Your task to perform on an android device: open a new tab in the chrome app Image 0: 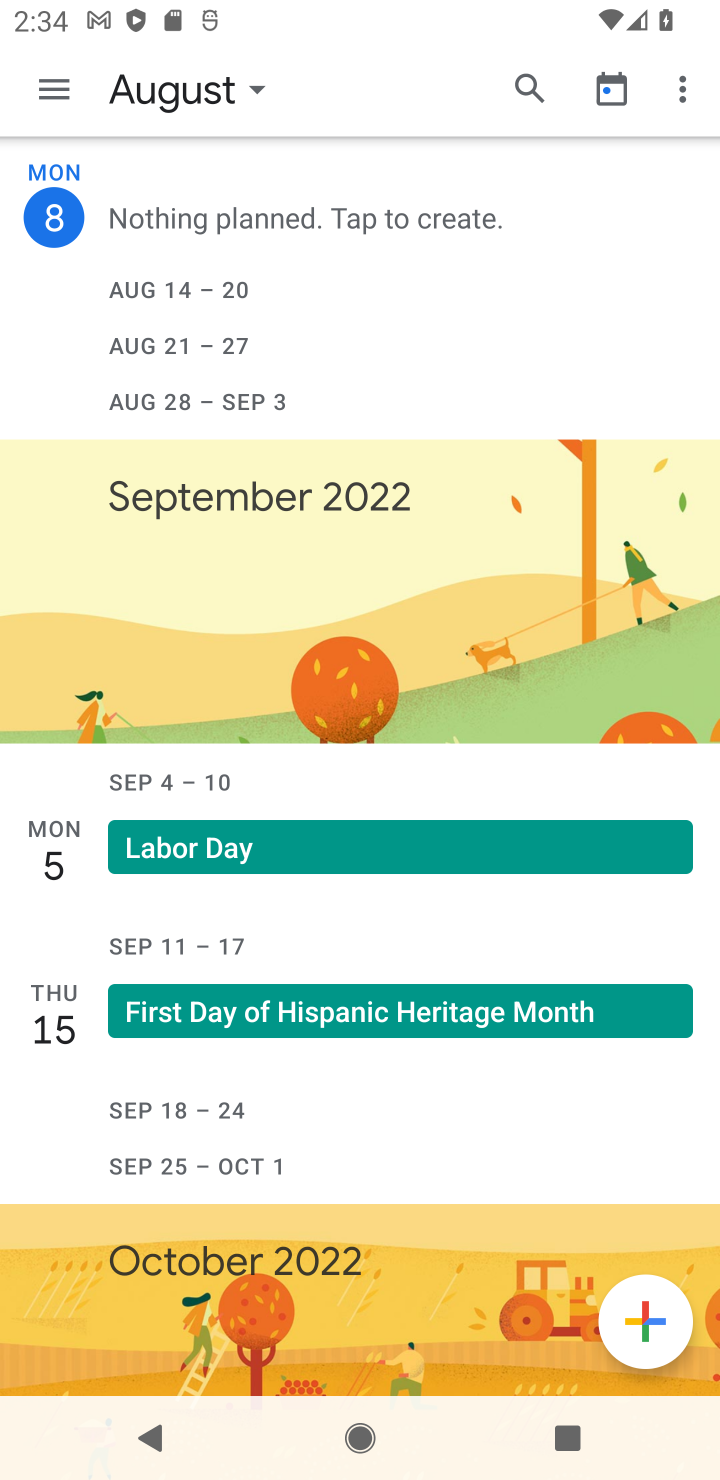
Step 0: press home button
Your task to perform on an android device: open a new tab in the chrome app Image 1: 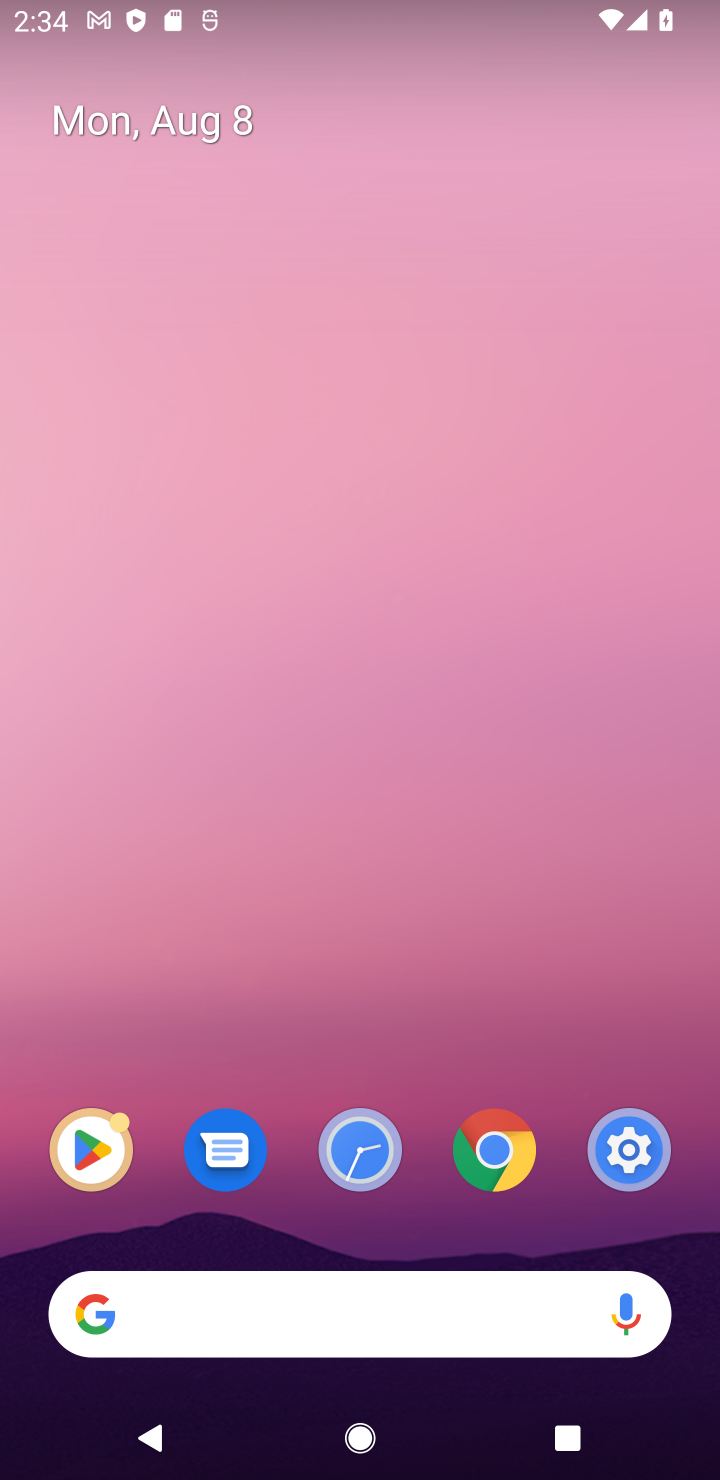
Step 1: click (490, 1108)
Your task to perform on an android device: open a new tab in the chrome app Image 2: 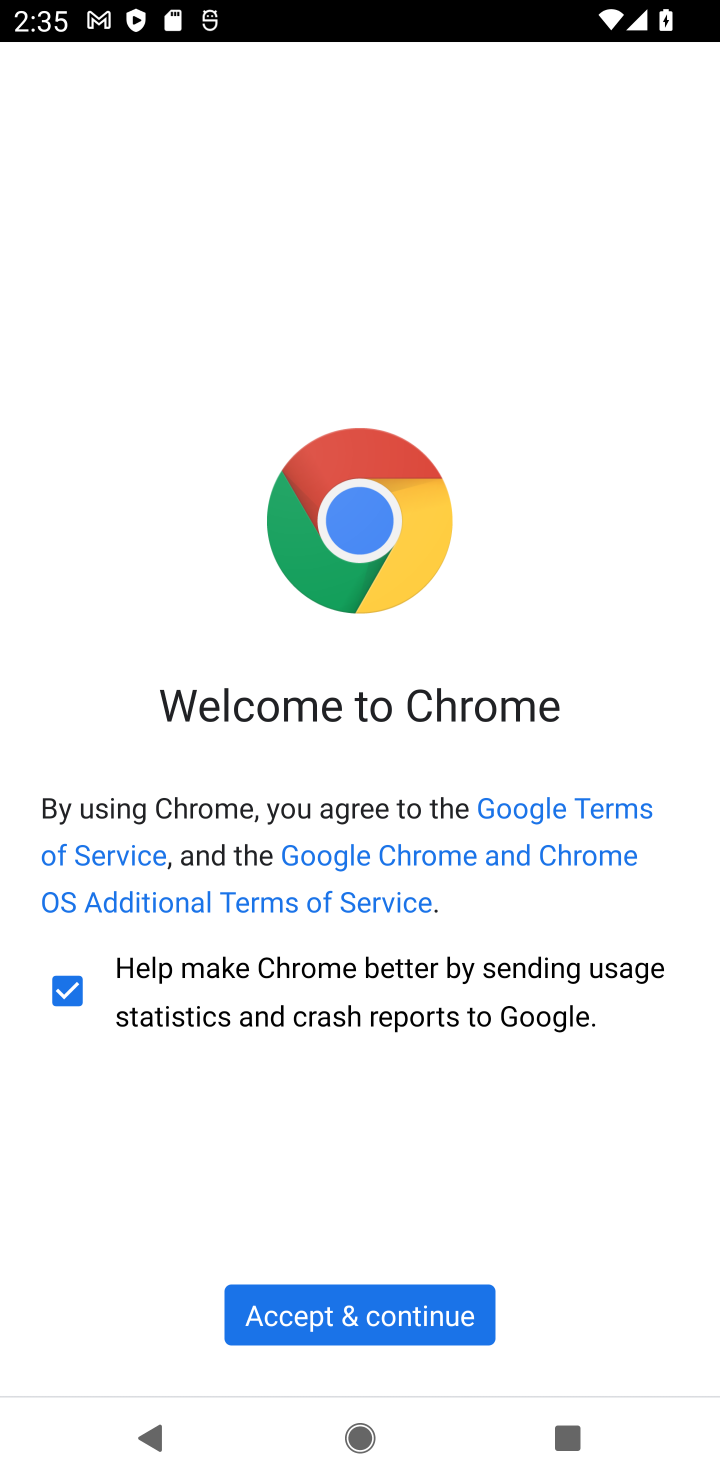
Step 2: click (392, 1294)
Your task to perform on an android device: open a new tab in the chrome app Image 3: 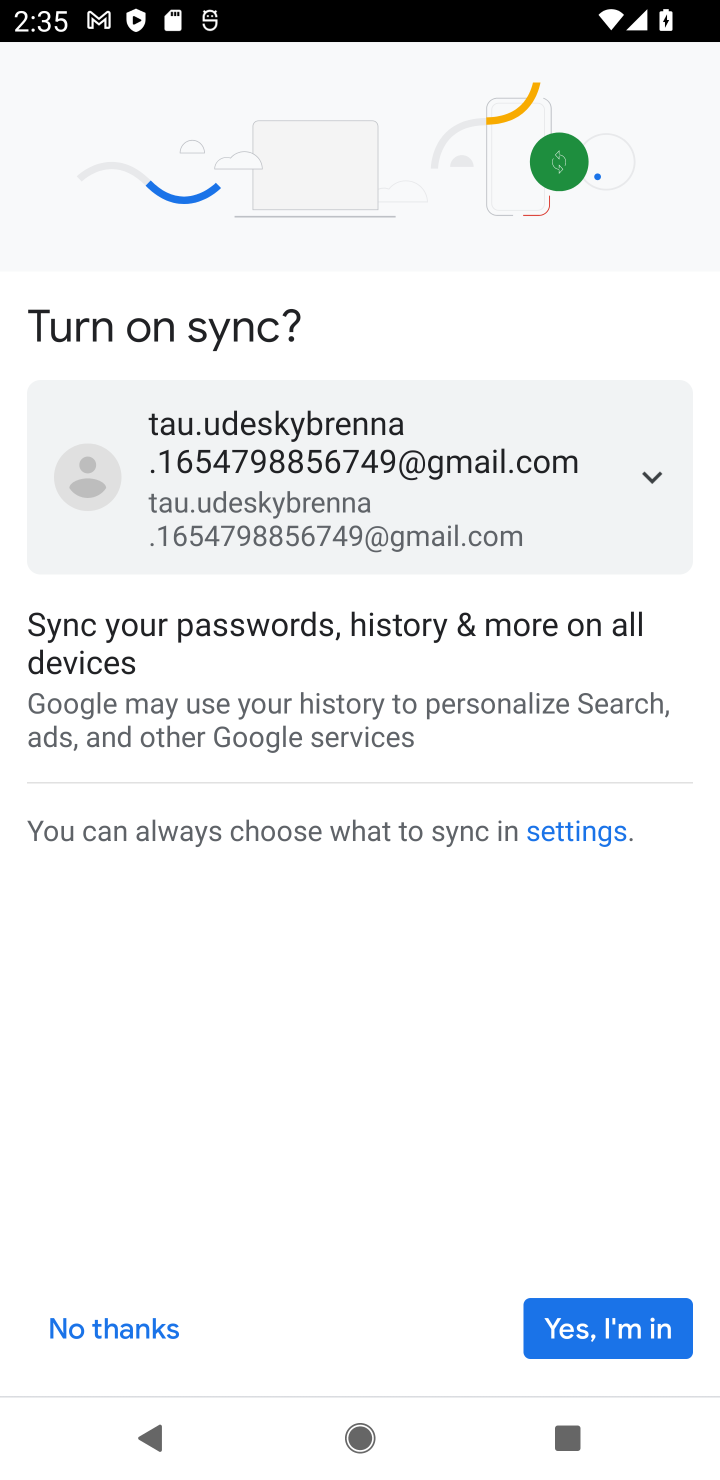
Step 3: click (571, 1337)
Your task to perform on an android device: open a new tab in the chrome app Image 4: 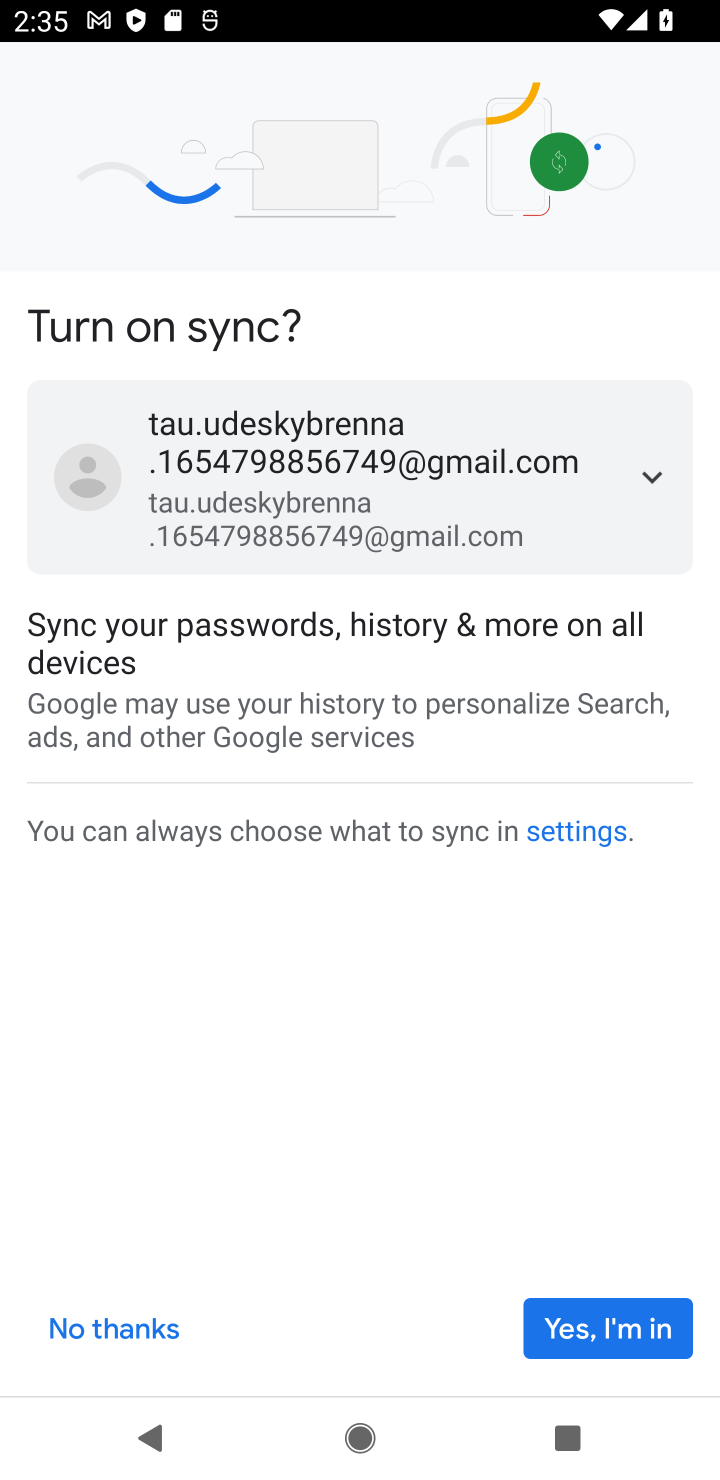
Step 4: task complete